Your task to perform on an android device: Open settings Image 0: 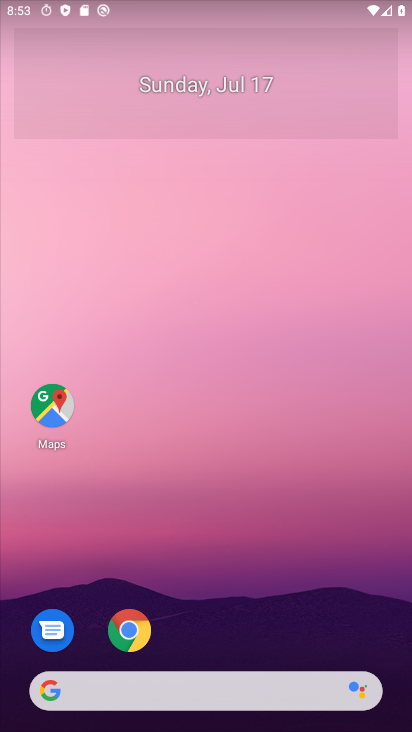
Step 0: drag from (24, 707) to (198, 235)
Your task to perform on an android device: Open settings Image 1: 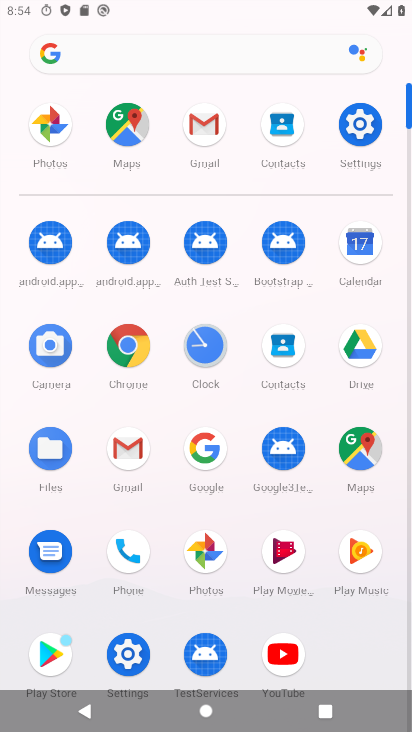
Step 1: click (135, 653)
Your task to perform on an android device: Open settings Image 2: 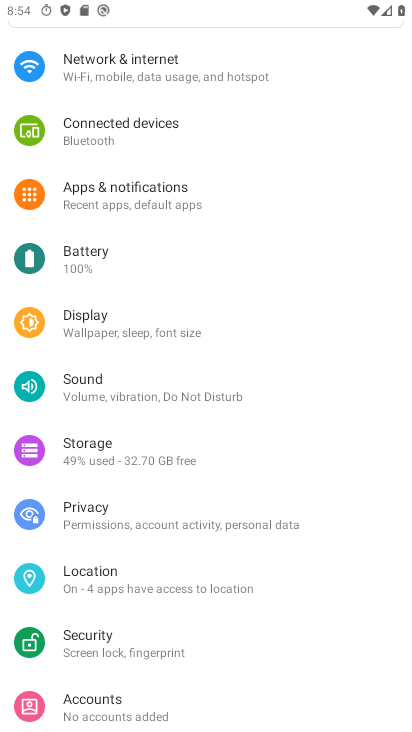
Step 2: task complete